Your task to perform on an android device: Go to Yahoo.com Image 0: 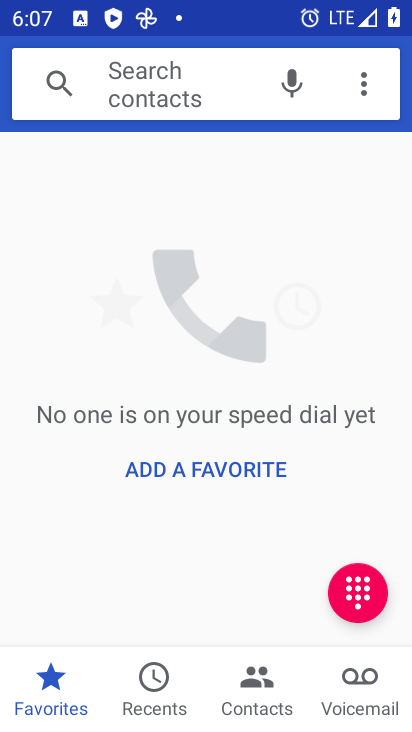
Step 0: press home button
Your task to perform on an android device: Go to Yahoo.com Image 1: 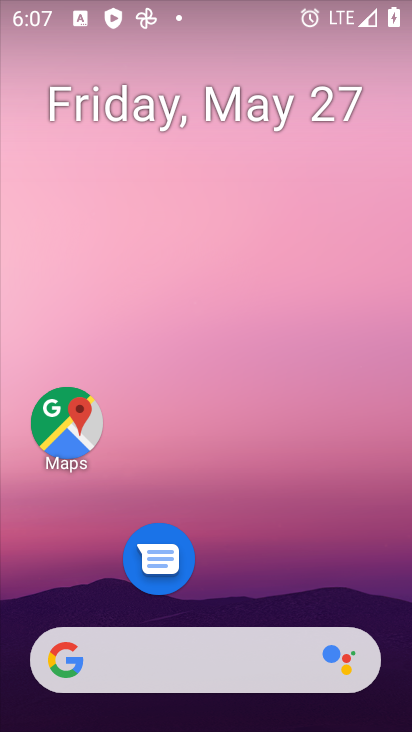
Step 1: drag from (283, 663) to (337, 9)
Your task to perform on an android device: Go to Yahoo.com Image 2: 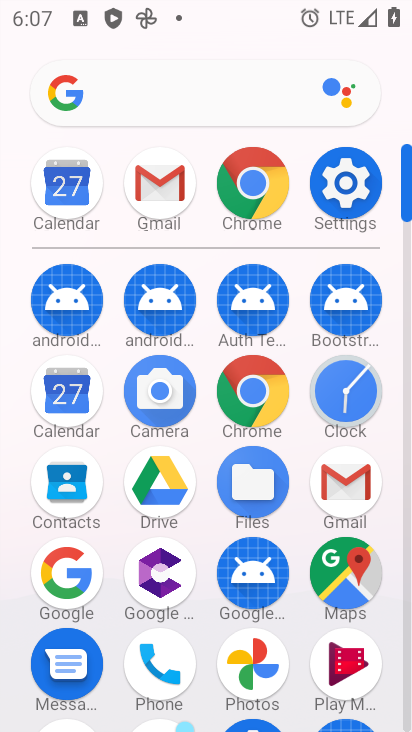
Step 2: click (255, 389)
Your task to perform on an android device: Go to Yahoo.com Image 3: 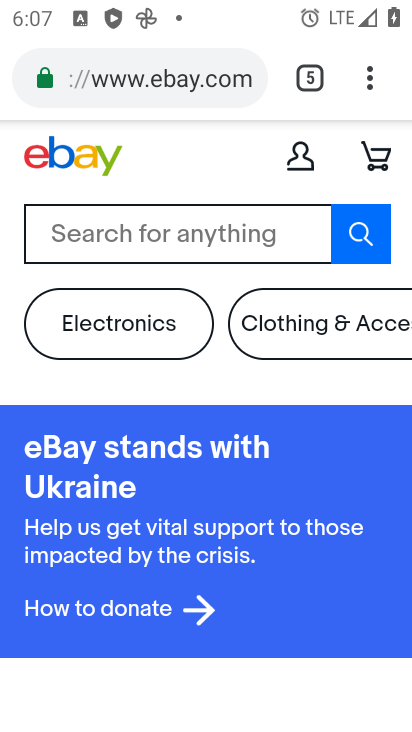
Step 3: click (183, 93)
Your task to perform on an android device: Go to Yahoo.com Image 4: 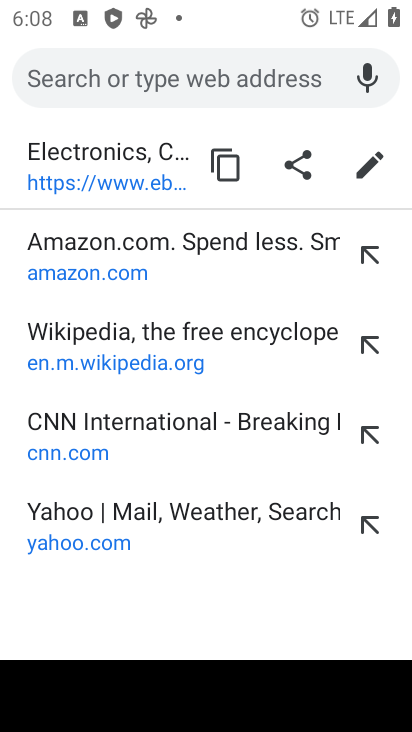
Step 4: type "yahoo.com"
Your task to perform on an android device: Go to Yahoo.com Image 5: 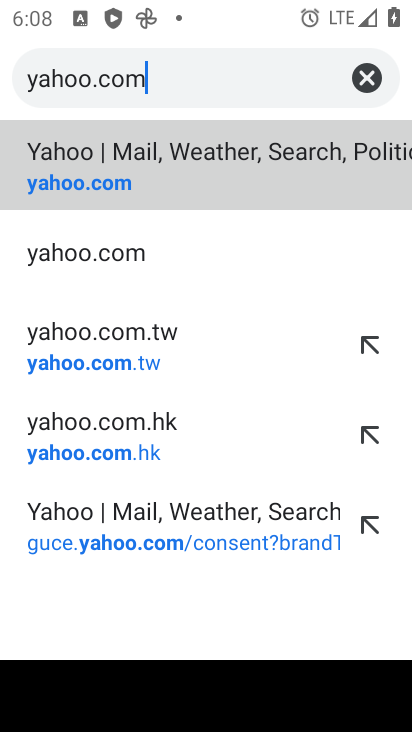
Step 5: click (299, 169)
Your task to perform on an android device: Go to Yahoo.com Image 6: 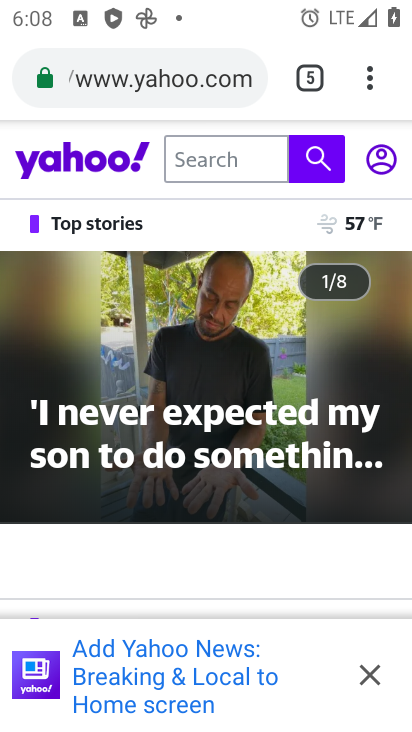
Step 6: task complete